Your task to perform on an android device: change text size in settings app Image 0: 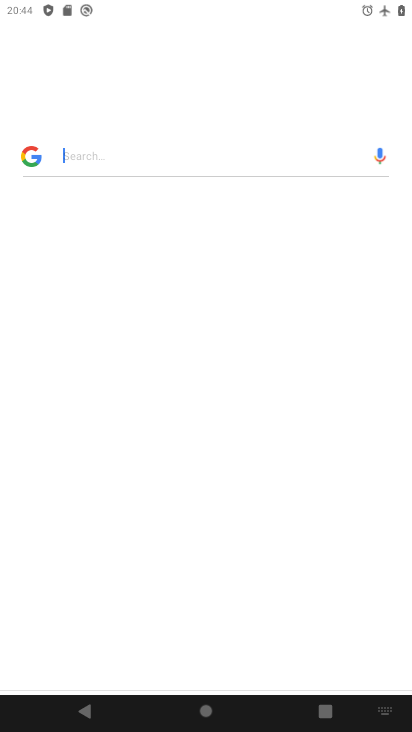
Step 0: drag from (246, 615) to (231, 236)
Your task to perform on an android device: change text size in settings app Image 1: 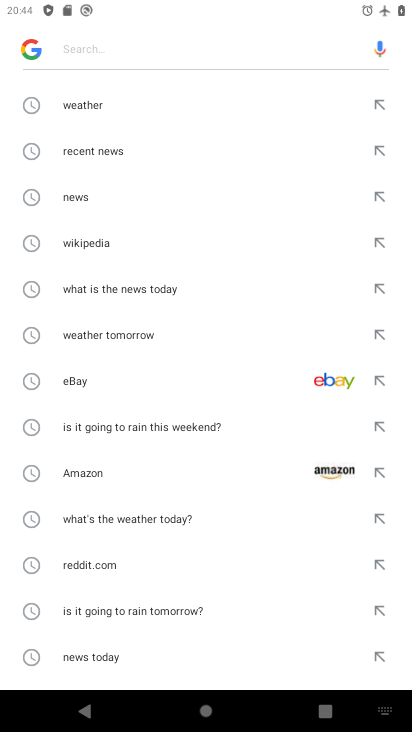
Step 1: press home button
Your task to perform on an android device: change text size in settings app Image 2: 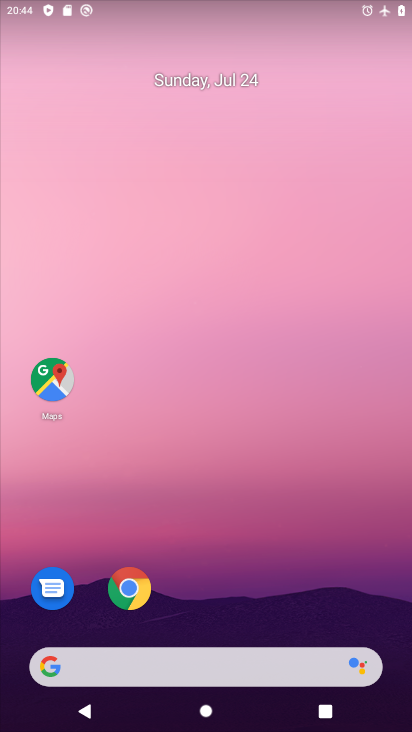
Step 2: drag from (260, 633) to (203, 80)
Your task to perform on an android device: change text size in settings app Image 3: 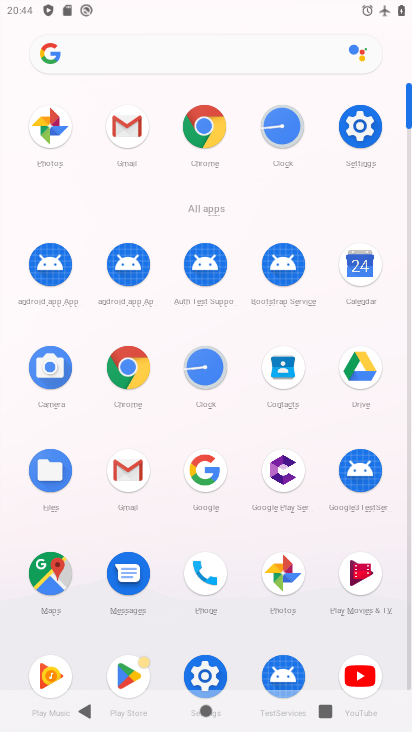
Step 3: click (372, 120)
Your task to perform on an android device: change text size in settings app Image 4: 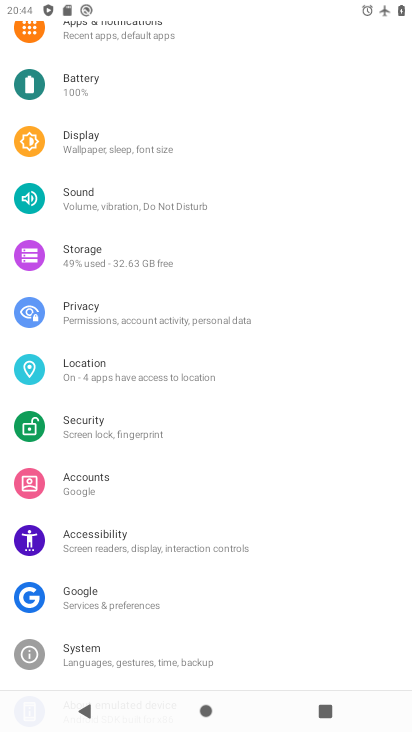
Step 4: click (120, 529)
Your task to perform on an android device: change text size in settings app Image 5: 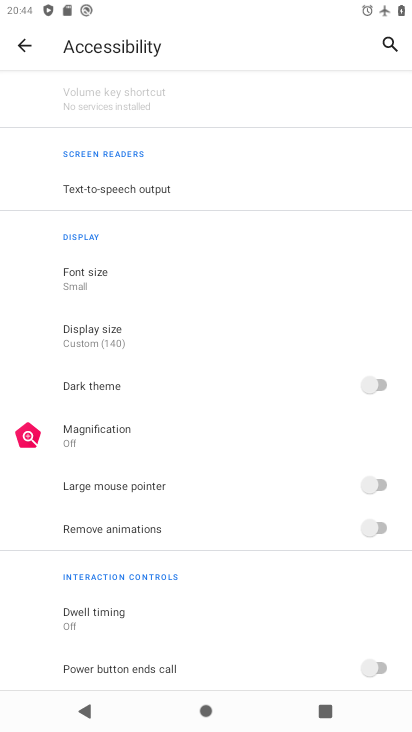
Step 5: click (106, 266)
Your task to perform on an android device: change text size in settings app Image 6: 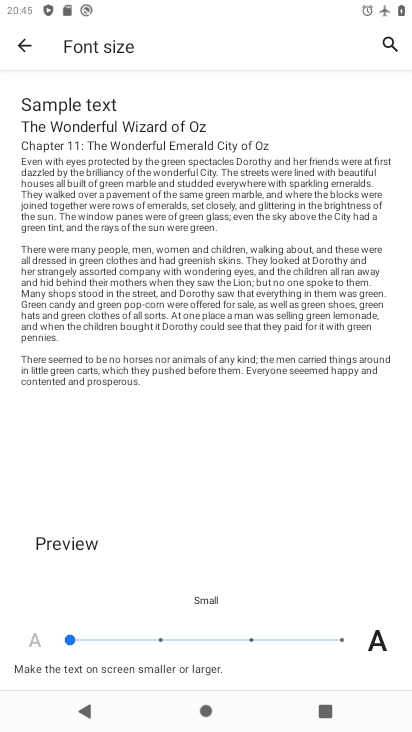
Step 6: click (257, 627)
Your task to perform on an android device: change text size in settings app Image 7: 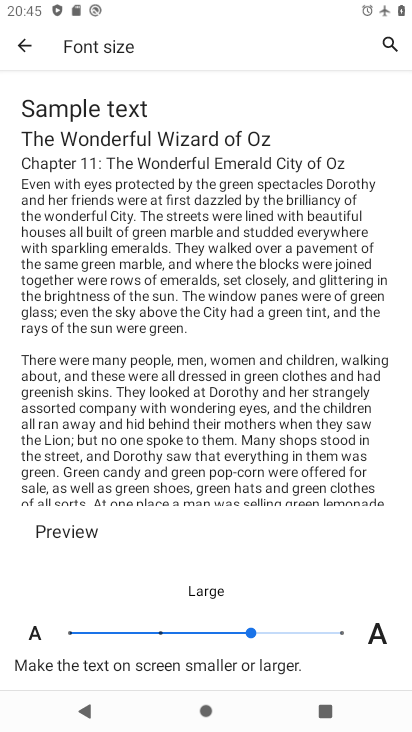
Step 7: task complete